Your task to perform on an android device: open a bookmark in the chrome app Image 0: 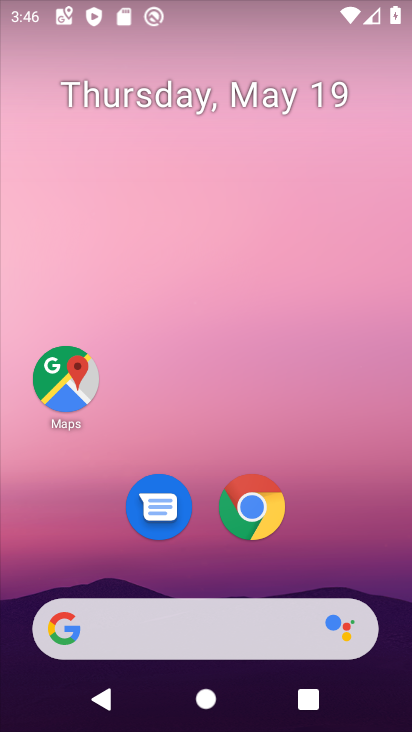
Step 0: click (250, 510)
Your task to perform on an android device: open a bookmark in the chrome app Image 1: 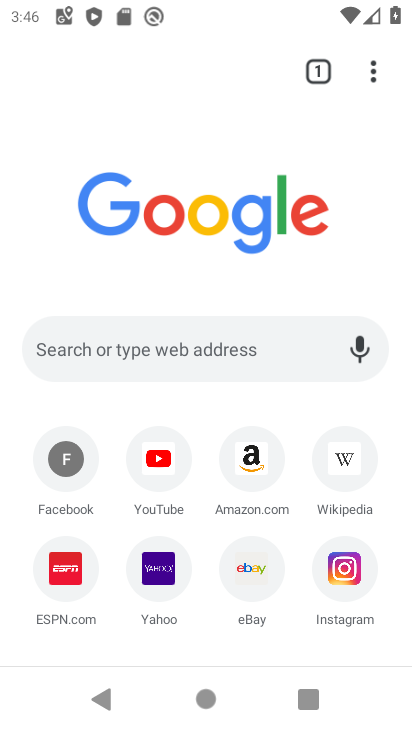
Step 1: click (374, 75)
Your task to perform on an android device: open a bookmark in the chrome app Image 2: 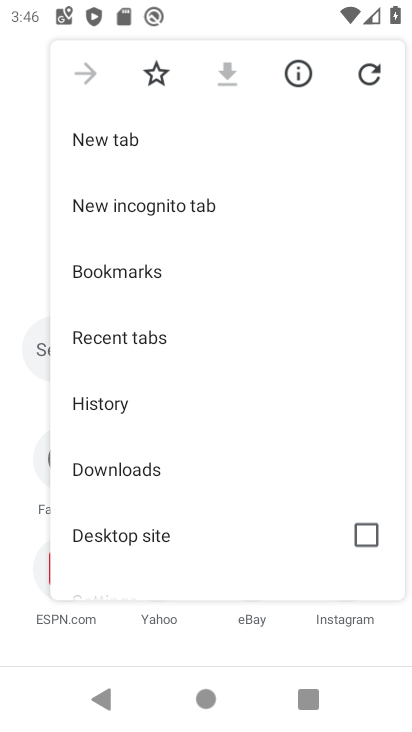
Step 2: click (137, 274)
Your task to perform on an android device: open a bookmark in the chrome app Image 3: 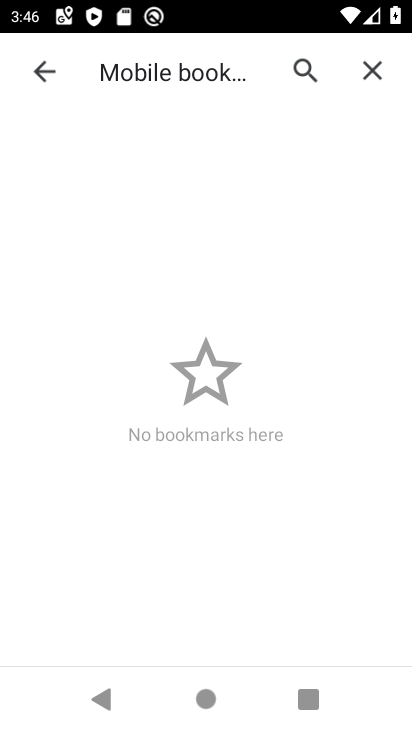
Step 3: task complete